Your task to perform on an android device: turn smart compose on in the gmail app Image 0: 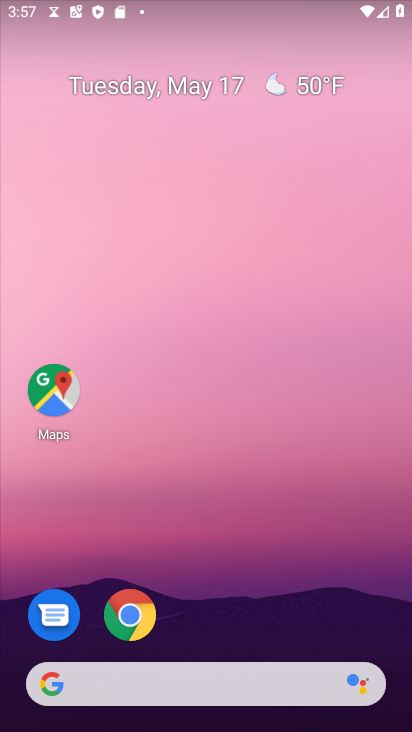
Step 0: drag from (294, 667) to (237, 223)
Your task to perform on an android device: turn smart compose on in the gmail app Image 1: 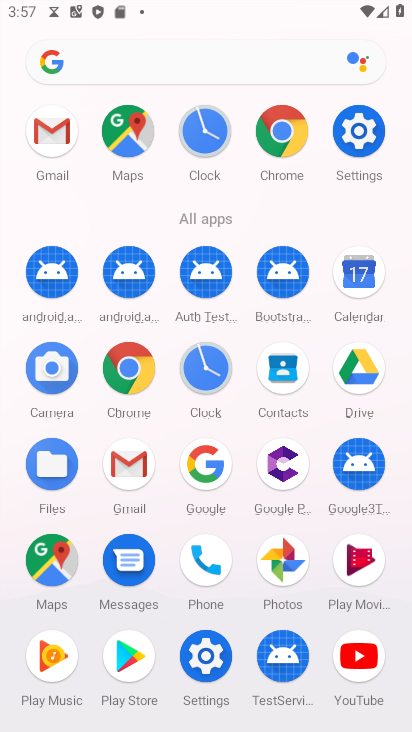
Step 1: click (132, 456)
Your task to perform on an android device: turn smart compose on in the gmail app Image 2: 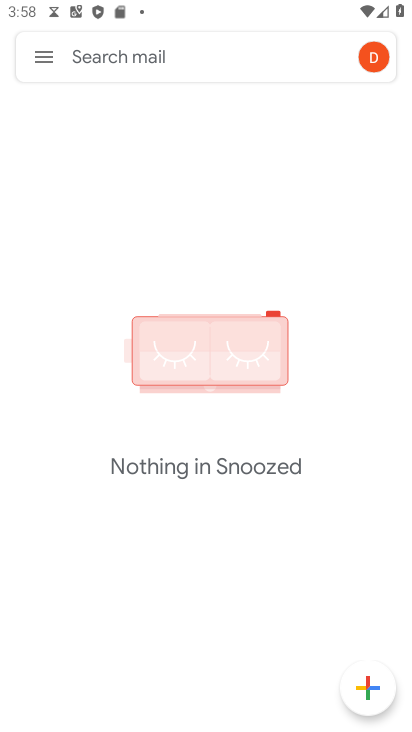
Step 2: click (44, 57)
Your task to perform on an android device: turn smart compose on in the gmail app Image 3: 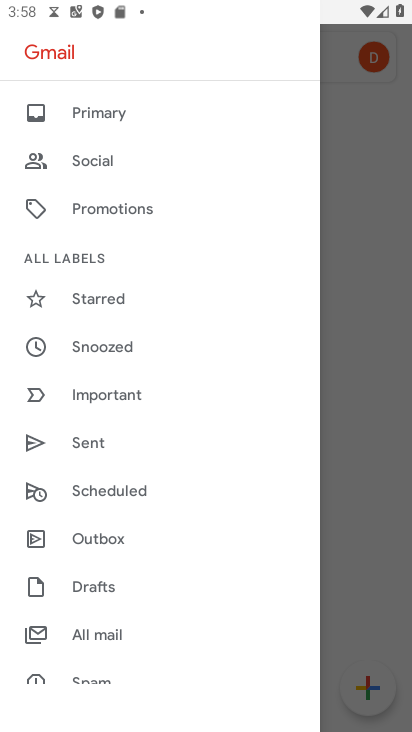
Step 3: drag from (166, 502) to (155, 91)
Your task to perform on an android device: turn smart compose on in the gmail app Image 4: 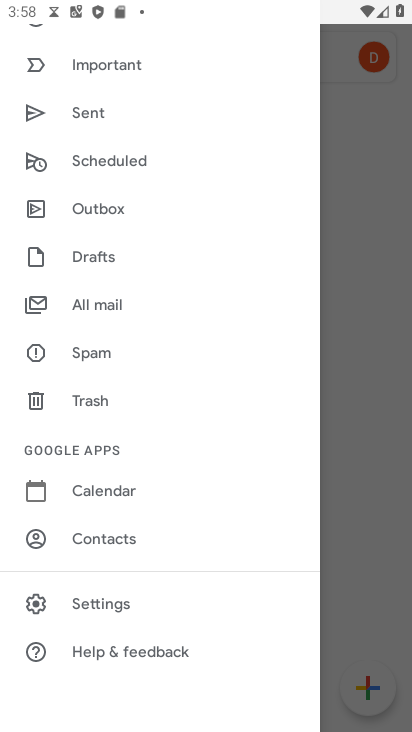
Step 4: click (105, 596)
Your task to perform on an android device: turn smart compose on in the gmail app Image 5: 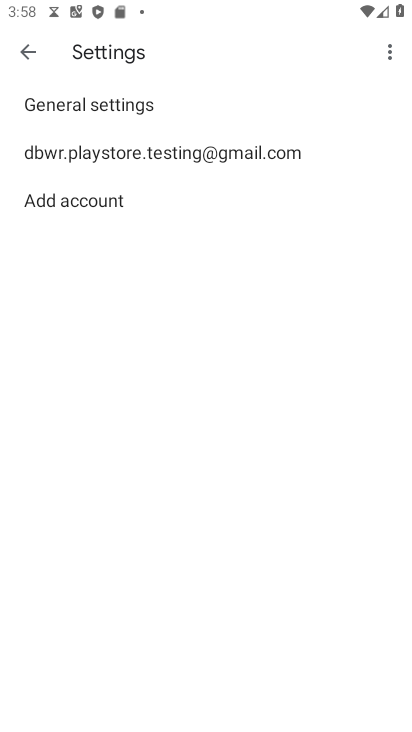
Step 5: click (117, 155)
Your task to perform on an android device: turn smart compose on in the gmail app Image 6: 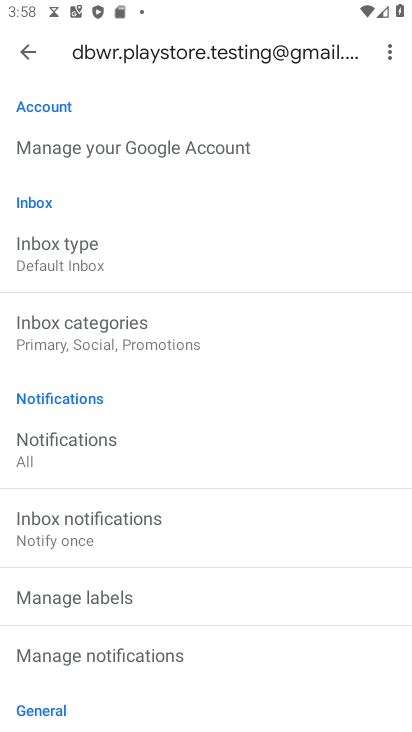
Step 6: task complete